Your task to perform on an android device: Open network settings Image 0: 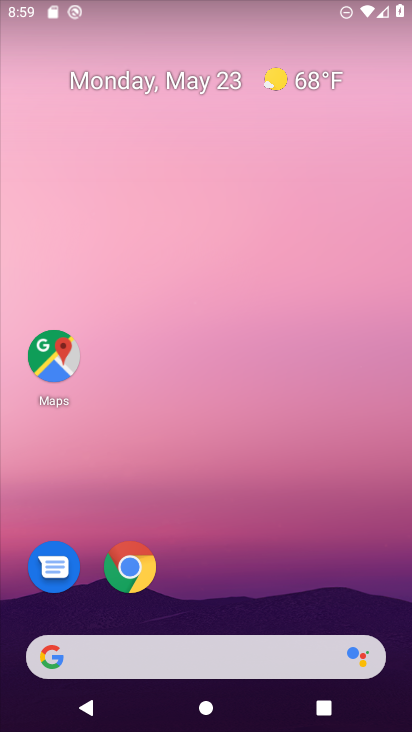
Step 0: drag from (210, 511) to (236, 58)
Your task to perform on an android device: Open network settings Image 1: 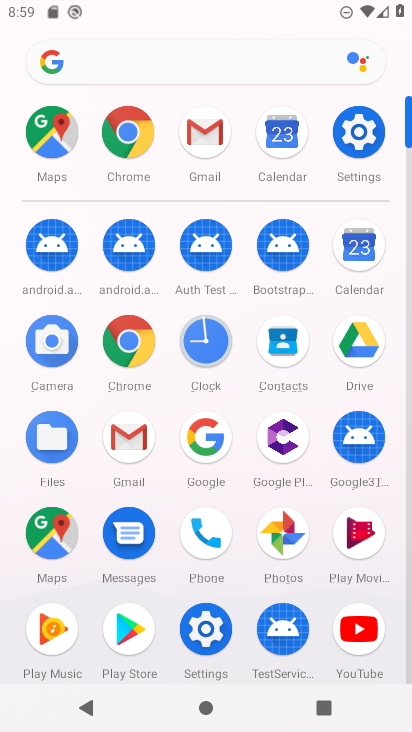
Step 1: click (359, 130)
Your task to perform on an android device: Open network settings Image 2: 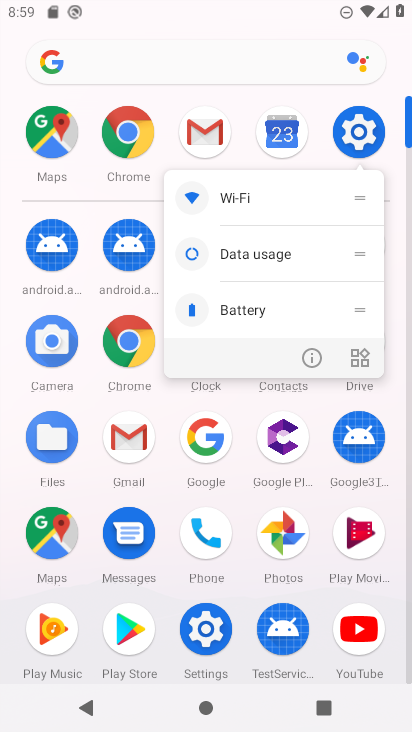
Step 2: click (313, 366)
Your task to perform on an android device: Open network settings Image 3: 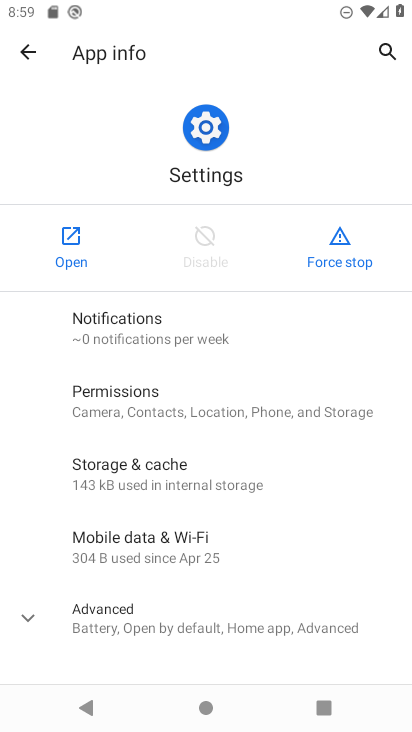
Step 3: click (72, 245)
Your task to perform on an android device: Open network settings Image 4: 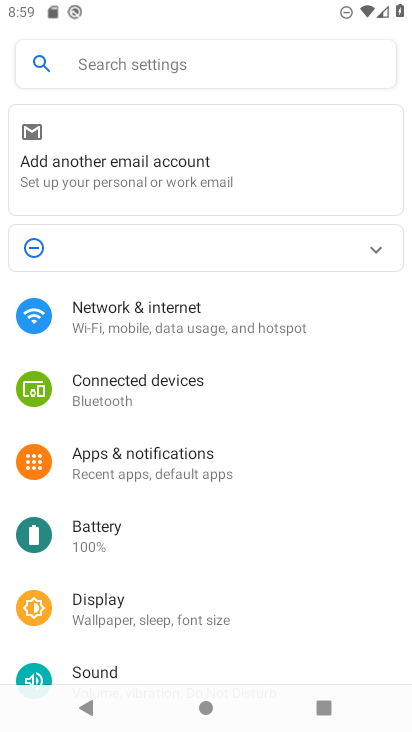
Step 4: click (214, 319)
Your task to perform on an android device: Open network settings Image 5: 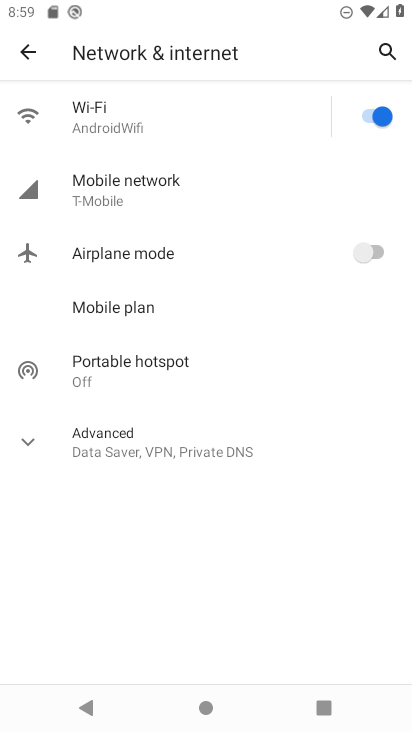
Step 5: click (213, 191)
Your task to perform on an android device: Open network settings Image 6: 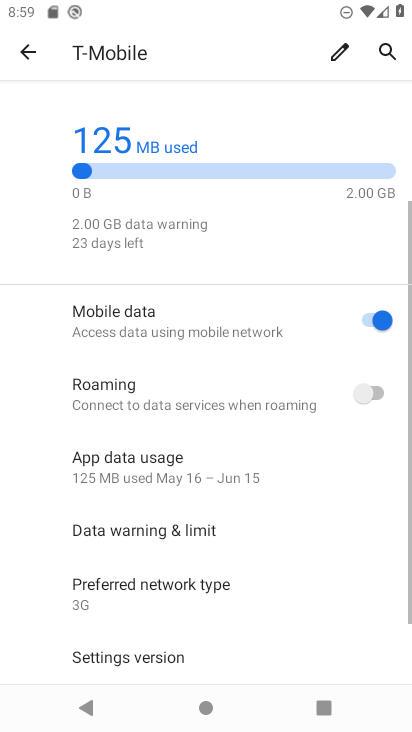
Step 6: task complete